Your task to perform on an android device: find snoozed emails in the gmail app Image 0: 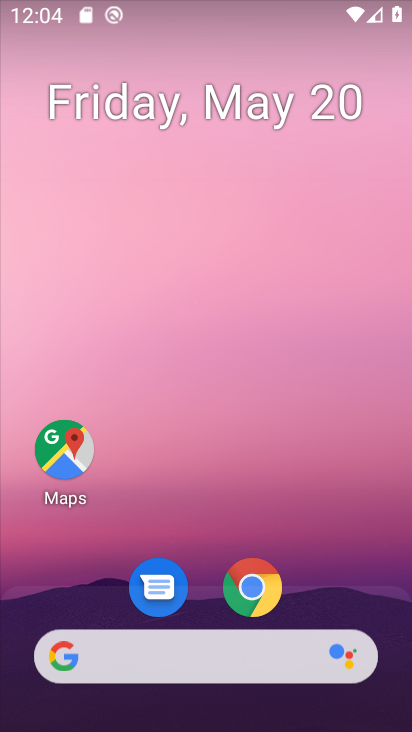
Step 0: drag from (377, 622) to (350, 80)
Your task to perform on an android device: find snoozed emails in the gmail app Image 1: 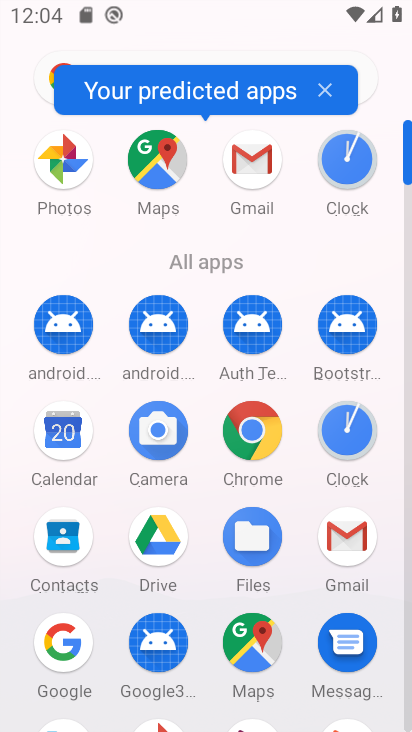
Step 1: click (347, 550)
Your task to perform on an android device: find snoozed emails in the gmail app Image 2: 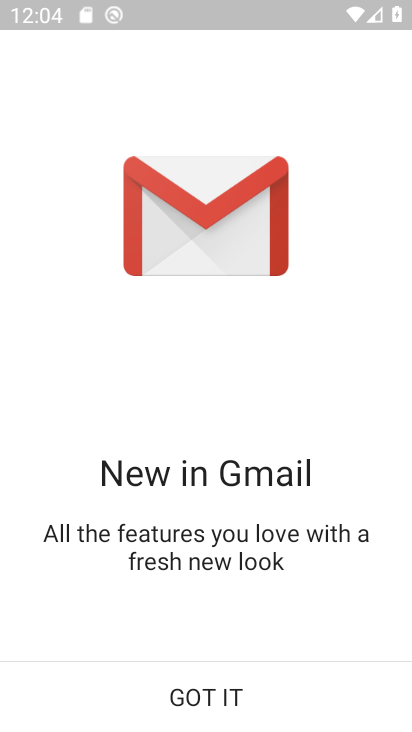
Step 2: click (238, 698)
Your task to perform on an android device: find snoozed emails in the gmail app Image 3: 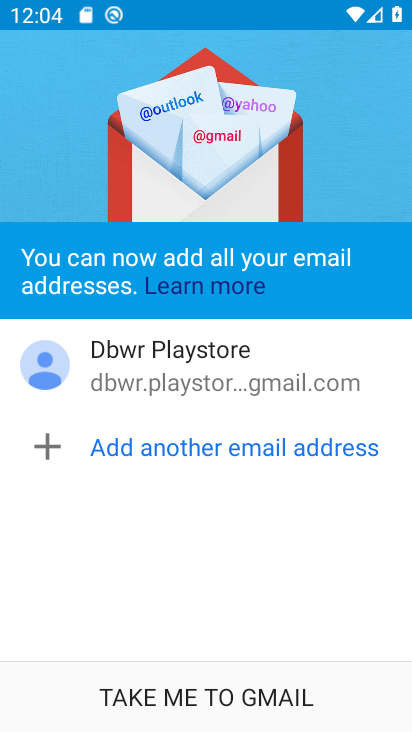
Step 3: click (283, 699)
Your task to perform on an android device: find snoozed emails in the gmail app Image 4: 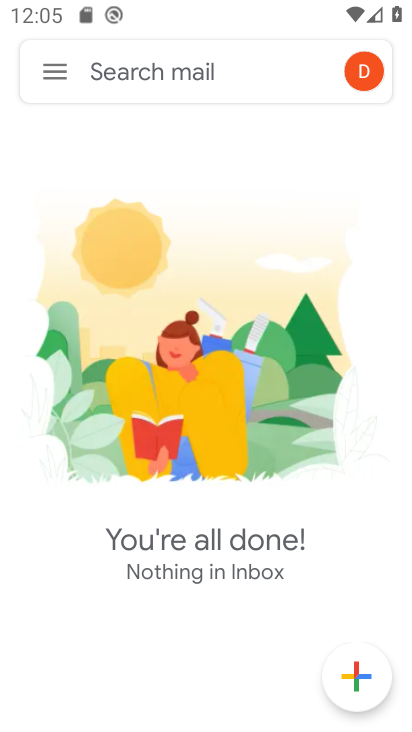
Step 4: click (62, 81)
Your task to perform on an android device: find snoozed emails in the gmail app Image 5: 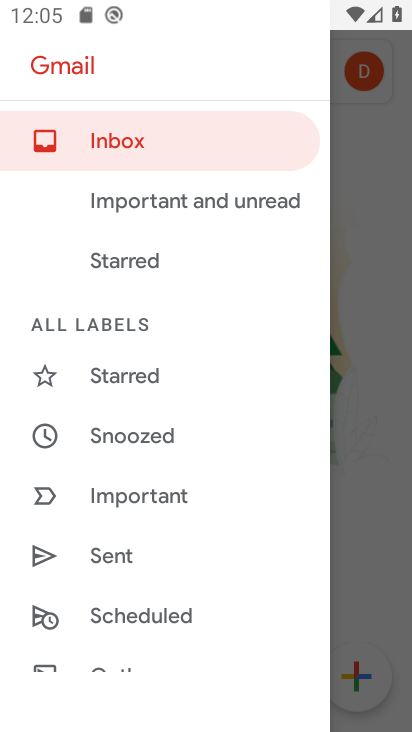
Step 5: drag from (223, 536) to (226, 421)
Your task to perform on an android device: find snoozed emails in the gmail app Image 6: 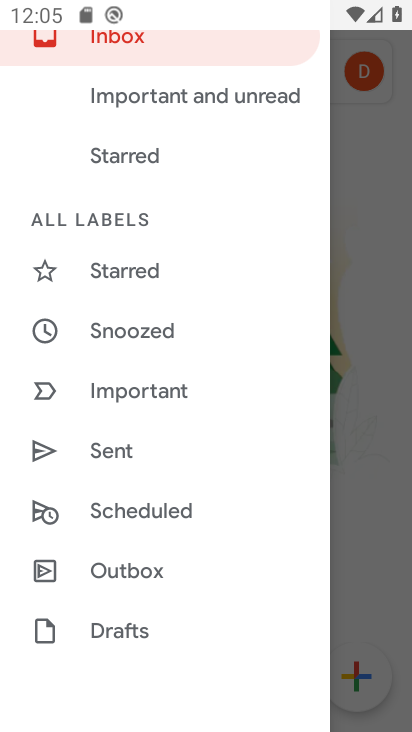
Step 6: drag from (229, 584) to (233, 464)
Your task to perform on an android device: find snoozed emails in the gmail app Image 7: 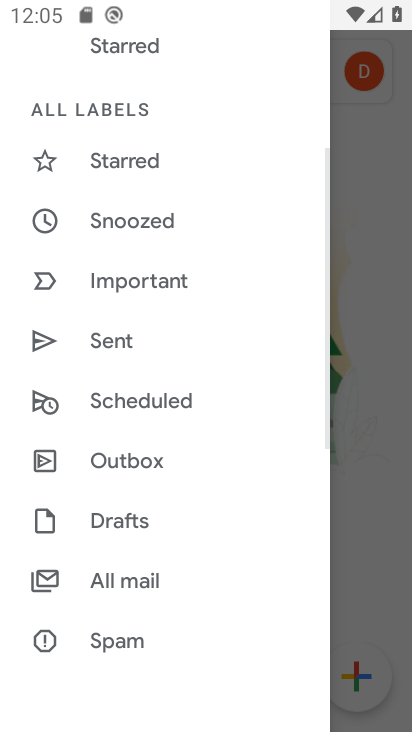
Step 7: drag from (223, 596) to (220, 502)
Your task to perform on an android device: find snoozed emails in the gmail app Image 8: 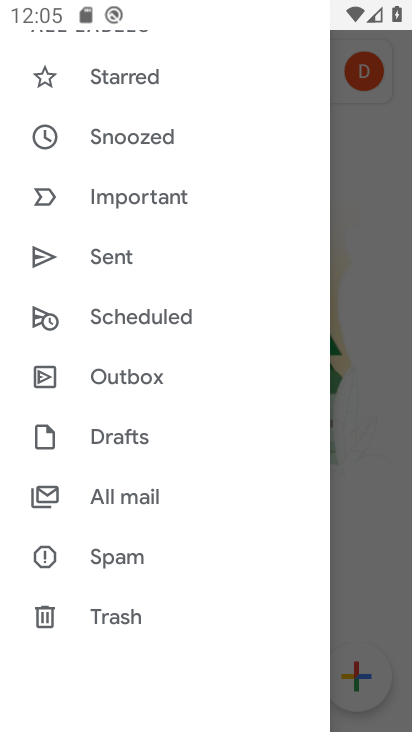
Step 8: drag from (216, 634) to (215, 522)
Your task to perform on an android device: find snoozed emails in the gmail app Image 9: 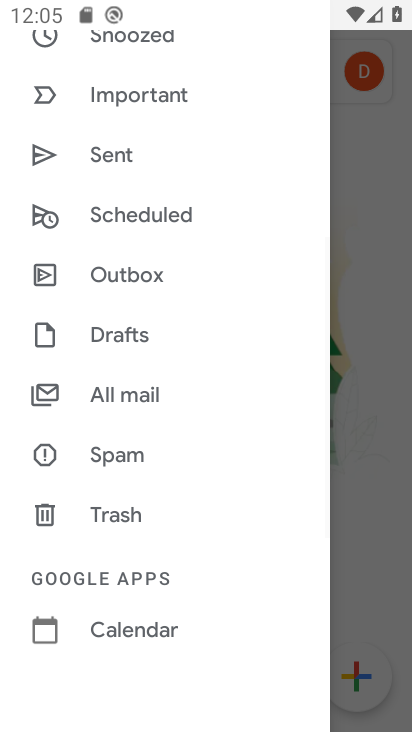
Step 9: drag from (209, 644) to (221, 537)
Your task to perform on an android device: find snoozed emails in the gmail app Image 10: 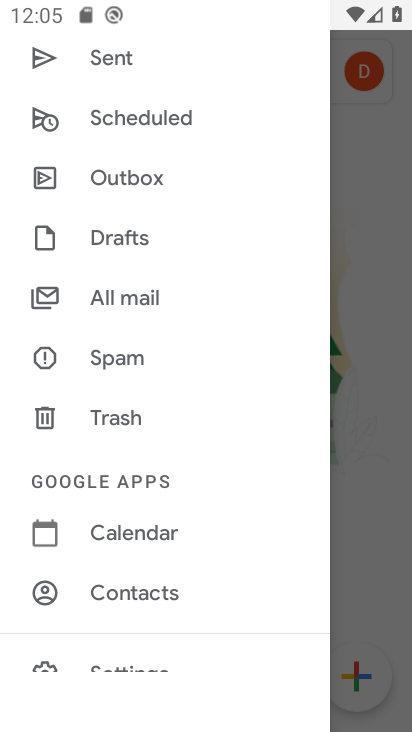
Step 10: drag from (219, 656) to (226, 553)
Your task to perform on an android device: find snoozed emails in the gmail app Image 11: 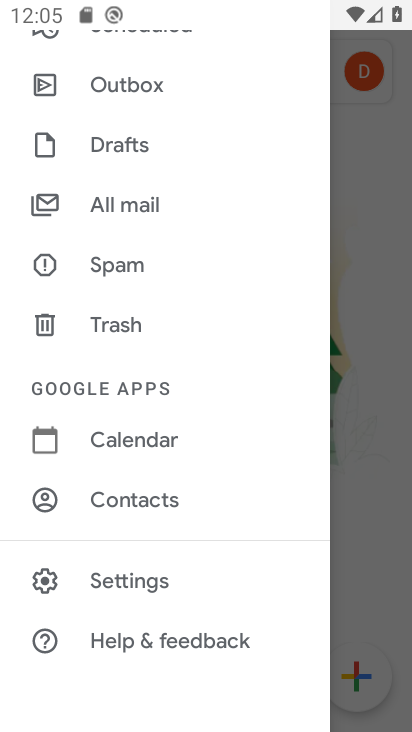
Step 11: drag from (239, 639) to (238, 527)
Your task to perform on an android device: find snoozed emails in the gmail app Image 12: 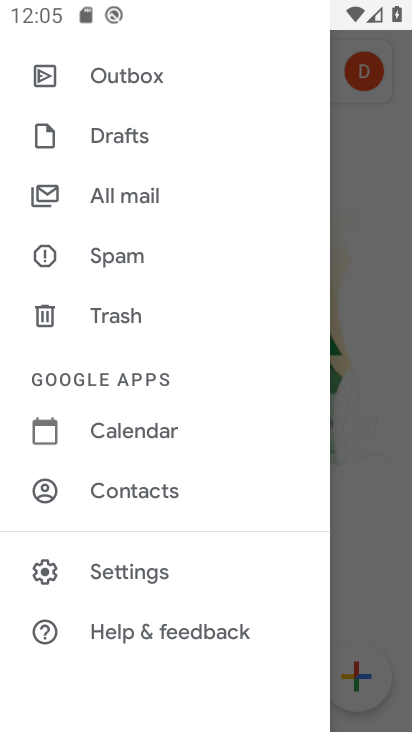
Step 12: drag from (252, 444) to (249, 530)
Your task to perform on an android device: find snoozed emails in the gmail app Image 13: 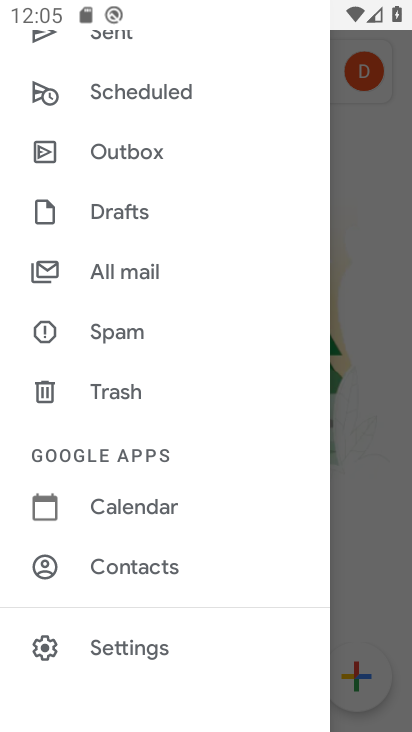
Step 13: drag from (253, 415) to (247, 529)
Your task to perform on an android device: find snoozed emails in the gmail app Image 14: 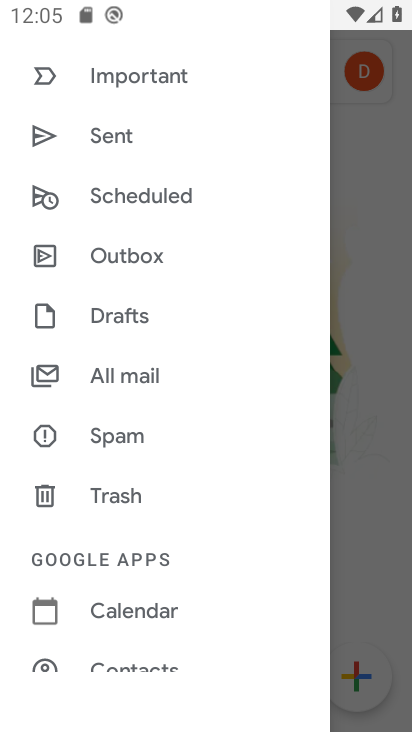
Step 14: drag from (251, 366) to (242, 472)
Your task to perform on an android device: find snoozed emails in the gmail app Image 15: 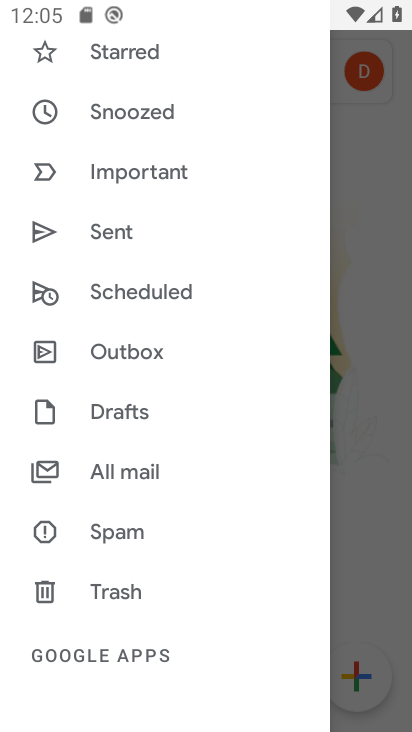
Step 15: drag from (240, 369) to (238, 485)
Your task to perform on an android device: find snoozed emails in the gmail app Image 16: 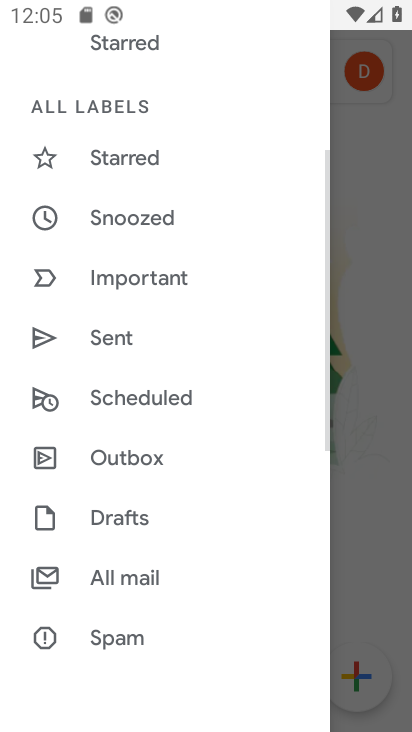
Step 16: drag from (251, 346) to (249, 446)
Your task to perform on an android device: find snoozed emails in the gmail app Image 17: 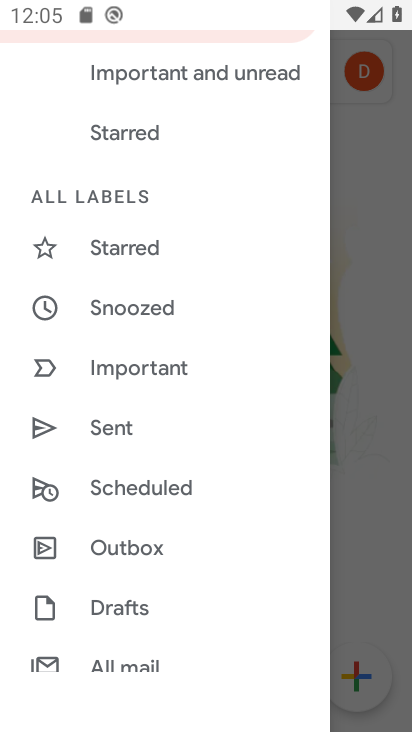
Step 17: drag from (237, 339) to (234, 404)
Your task to perform on an android device: find snoozed emails in the gmail app Image 18: 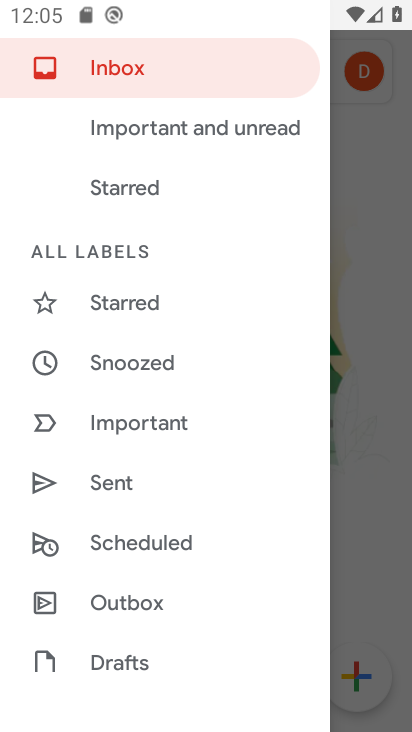
Step 18: click (186, 380)
Your task to perform on an android device: find snoozed emails in the gmail app Image 19: 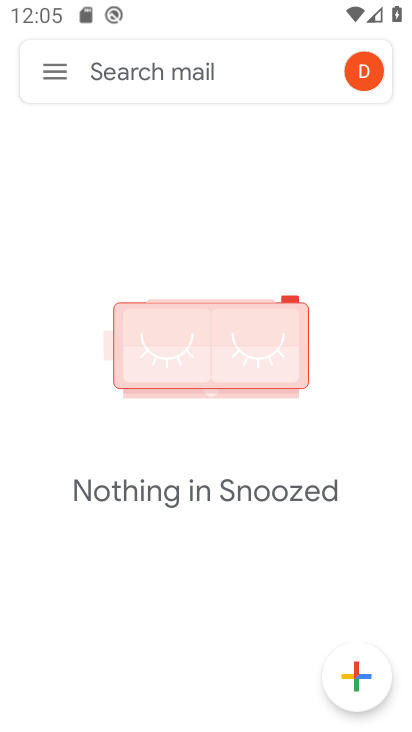
Step 19: task complete